Your task to perform on an android device: Open calendar and show me the third week of next month Image 0: 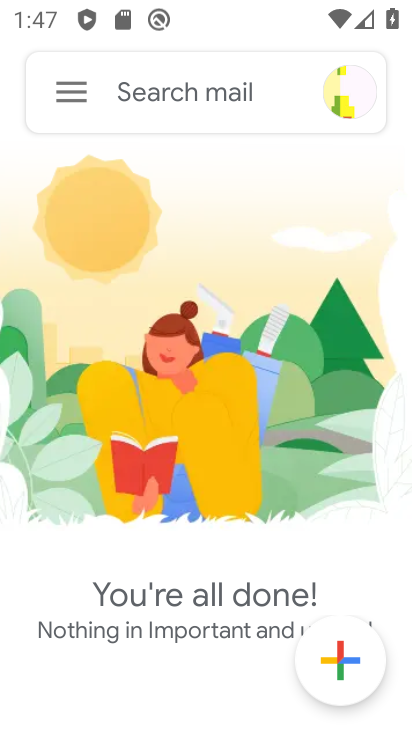
Step 0: press home button
Your task to perform on an android device: Open calendar and show me the third week of next month Image 1: 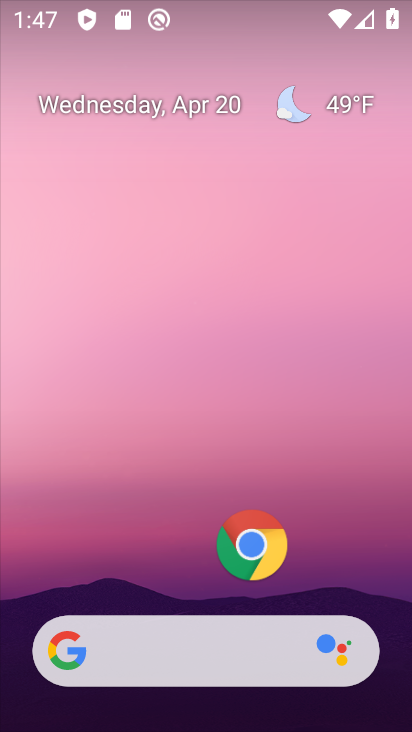
Step 1: drag from (160, 595) to (250, 29)
Your task to perform on an android device: Open calendar and show me the third week of next month Image 2: 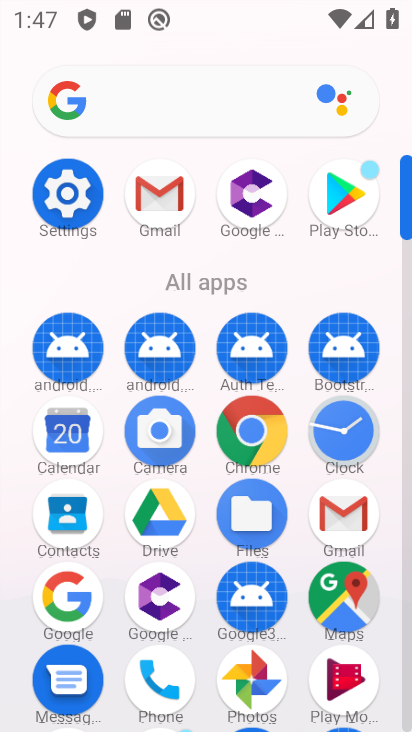
Step 2: click (68, 435)
Your task to perform on an android device: Open calendar and show me the third week of next month Image 3: 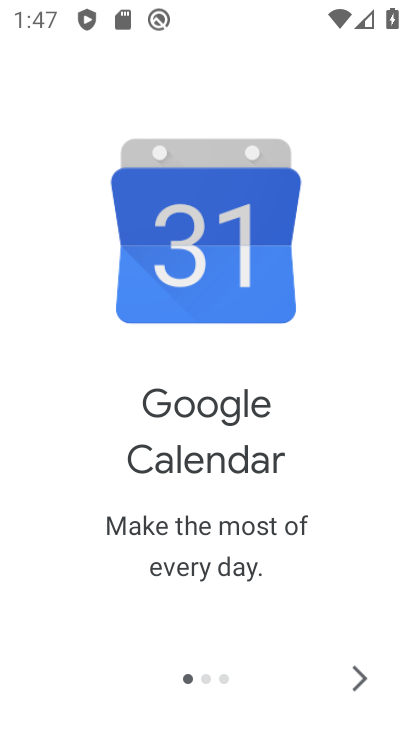
Step 3: click (360, 682)
Your task to perform on an android device: Open calendar and show me the third week of next month Image 4: 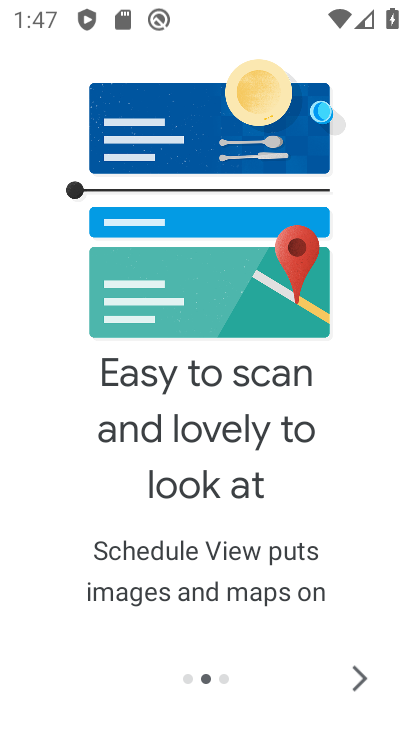
Step 4: click (360, 682)
Your task to perform on an android device: Open calendar and show me the third week of next month Image 5: 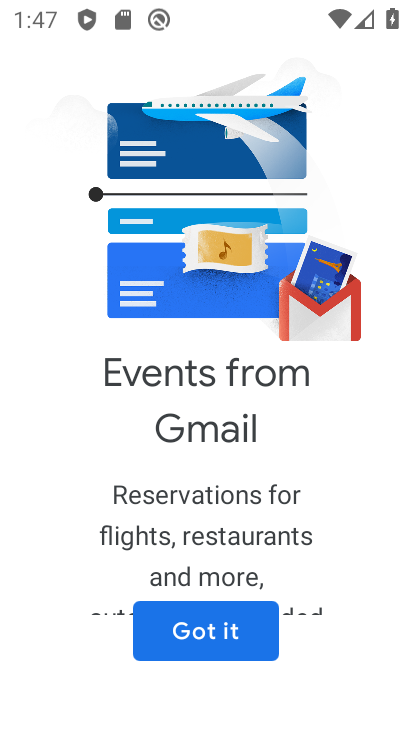
Step 5: click (252, 655)
Your task to perform on an android device: Open calendar and show me the third week of next month Image 6: 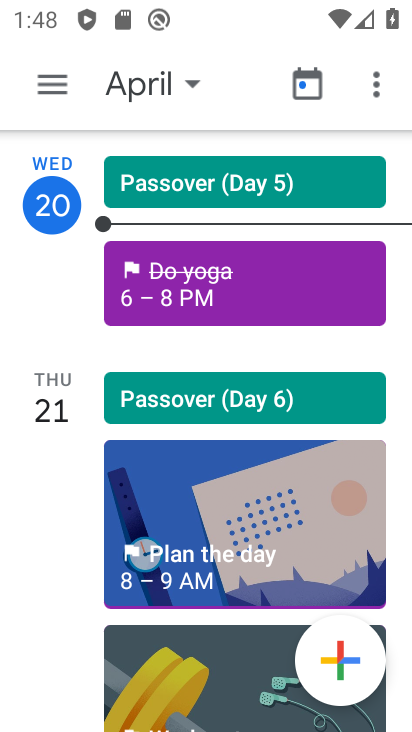
Step 6: click (189, 86)
Your task to perform on an android device: Open calendar and show me the third week of next month Image 7: 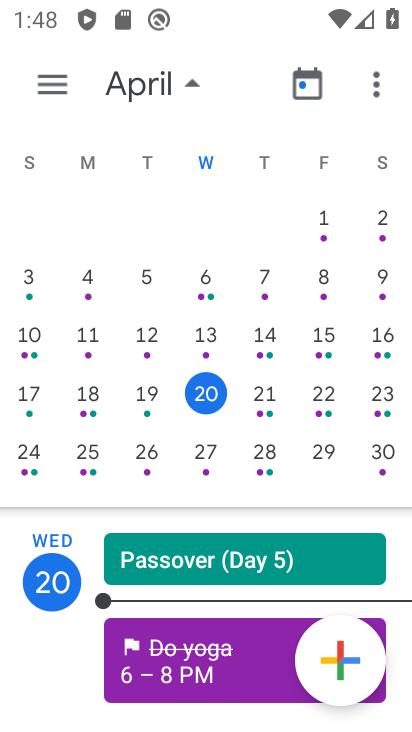
Step 7: drag from (349, 308) to (62, 328)
Your task to perform on an android device: Open calendar and show me the third week of next month Image 8: 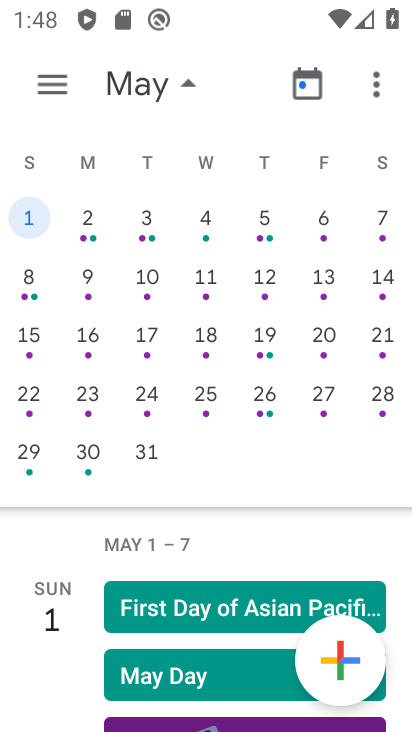
Step 8: click (90, 330)
Your task to perform on an android device: Open calendar and show me the third week of next month Image 9: 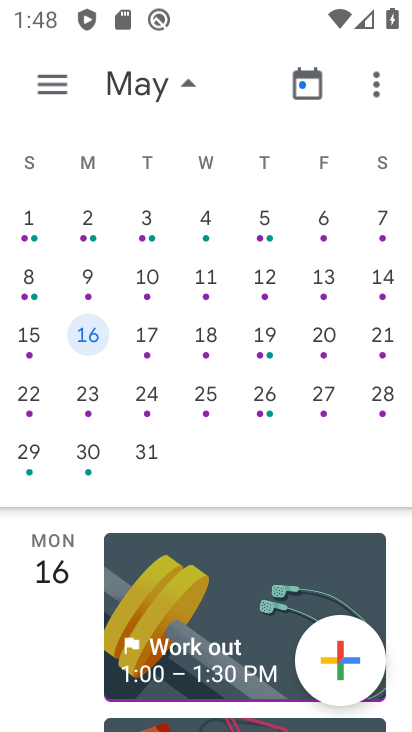
Step 9: click (55, 86)
Your task to perform on an android device: Open calendar and show me the third week of next month Image 10: 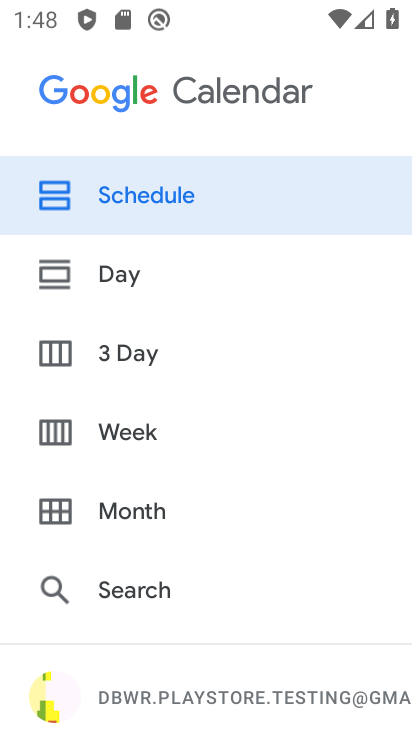
Step 10: click (121, 429)
Your task to perform on an android device: Open calendar and show me the third week of next month Image 11: 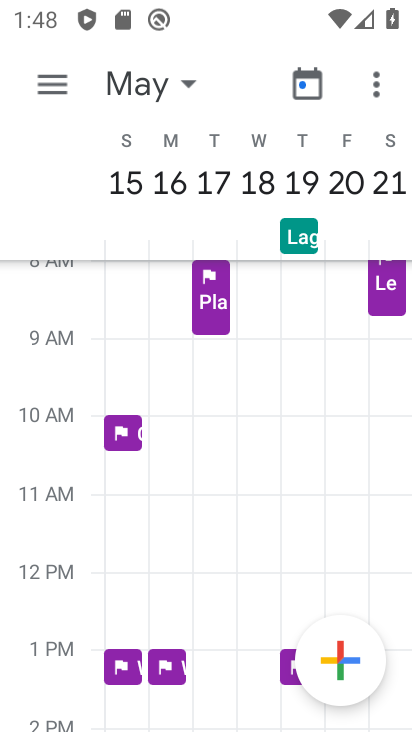
Step 11: task complete